Your task to perform on an android device: stop showing notifications on the lock screen Image 0: 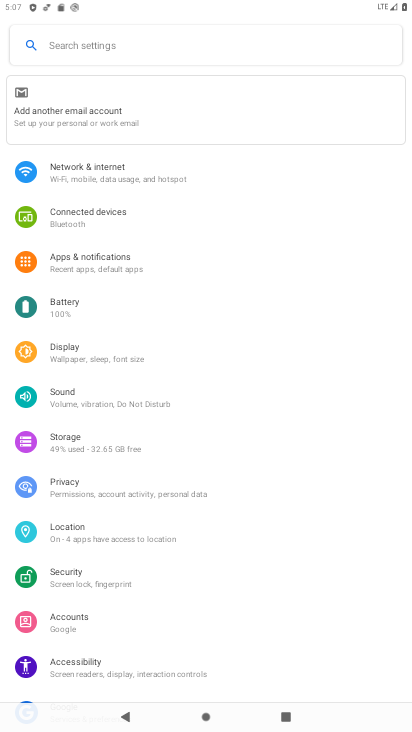
Step 0: press home button
Your task to perform on an android device: stop showing notifications on the lock screen Image 1: 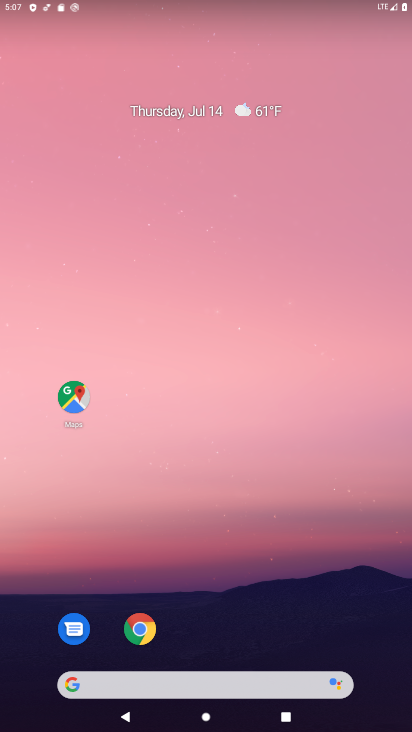
Step 1: drag from (341, 613) to (353, 11)
Your task to perform on an android device: stop showing notifications on the lock screen Image 2: 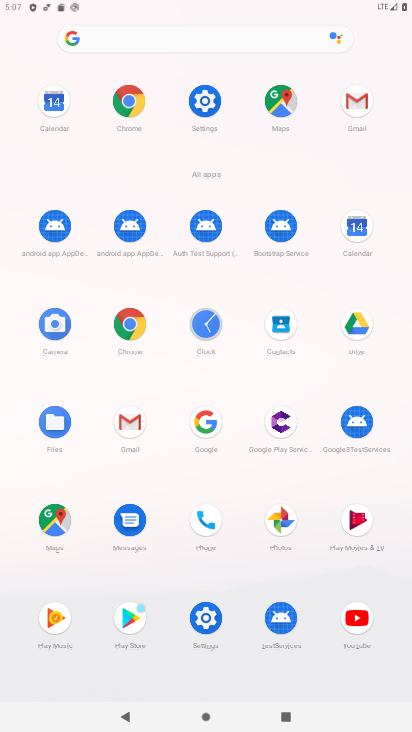
Step 2: click (211, 619)
Your task to perform on an android device: stop showing notifications on the lock screen Image 3: 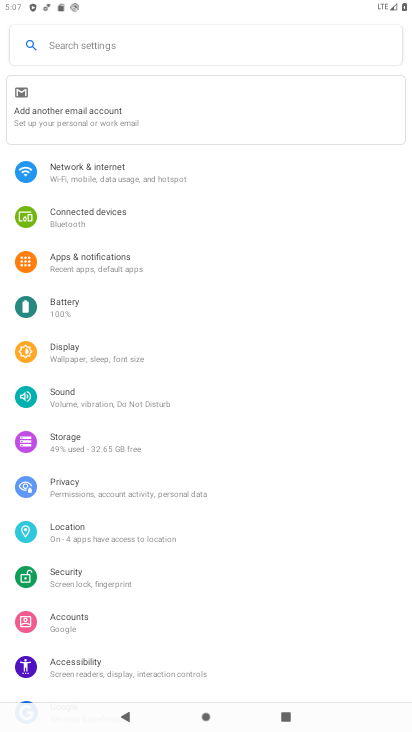
Step 3: click (102, 251)
Your task to perform on an android device: stop showing notifications on the lock screen Image 4: 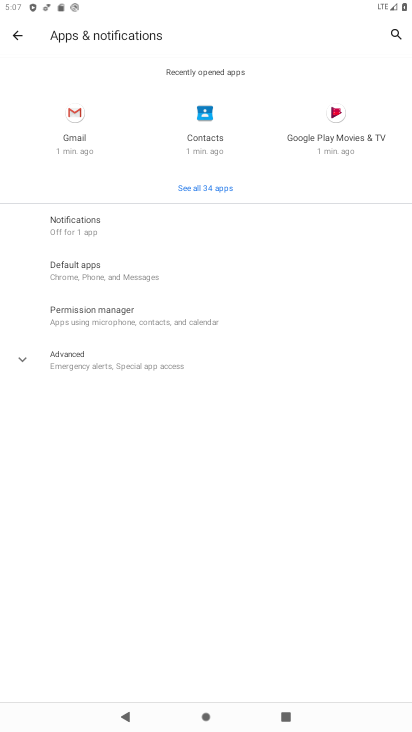
Step 4: click (78, 217)
Your task to perform on an android device: stop showing notifications on the lock screen Image 5: 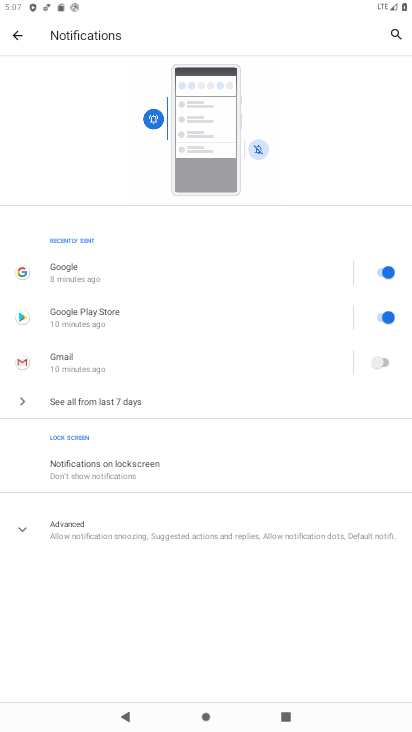
Step 5: click (69, 459)
Your task to perform on an android device: stop showing notifications on the lock screen Image 6: 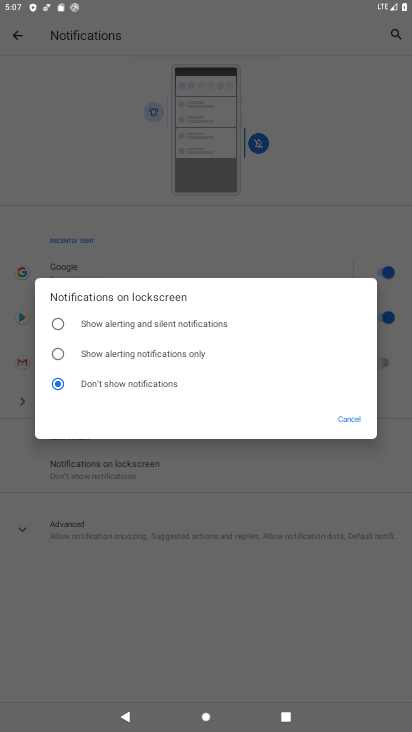
Step 6: click (124, 390)
Your task to perform on an android device: stop showing notifications on the lock screen Image 7: 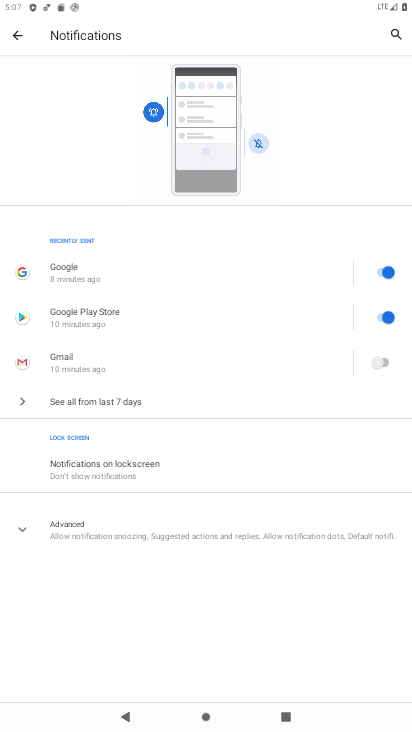
Step 7: task complete